Your task to perform on an android device: What is the recent news? Image 0: 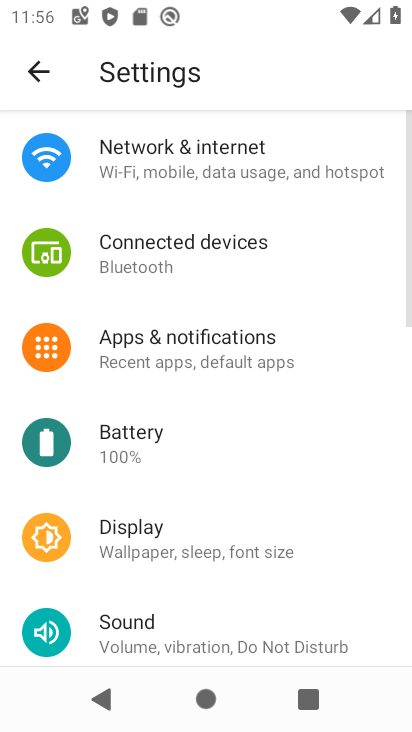
Step 0: press home button
Your task to perform on an android device: What is the recent news? Image 1: 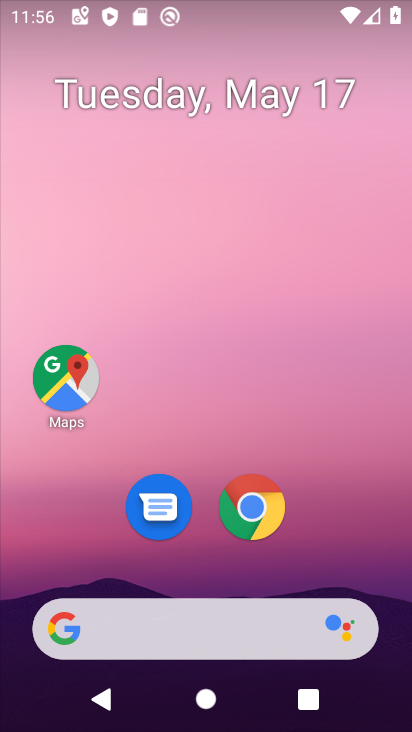
Step 1: drag from (301, 545) to (321, 227)
Your task to perform on an android device: What is the recent news? Image 2: 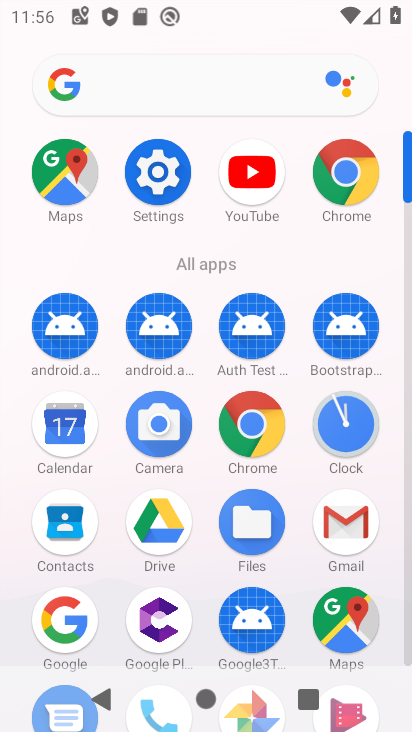
Step 2: click (246, 424)
Your task to perform on an android device: What is the recent news? Image 3: 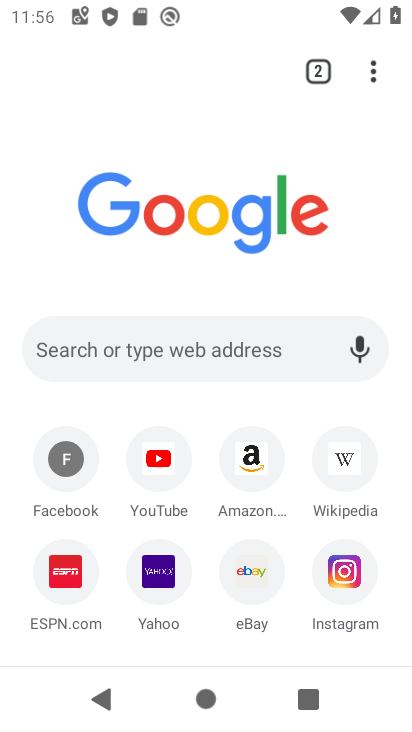
Step 3: click (204, 343)
Your task to perform on an android device: What is the recent news? Image 4: 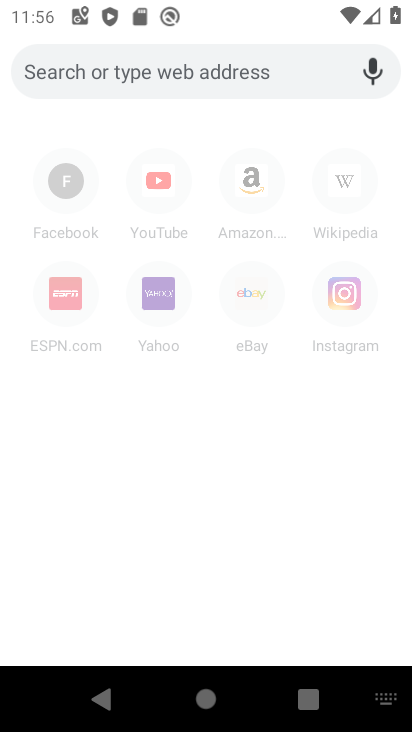
Step 4: type "What is the recent news?"
Your task to perform on an android device: What is the recent news? Image 5: 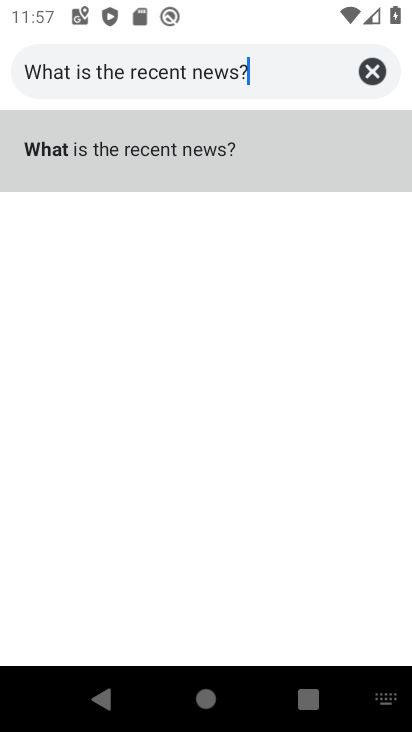
Step 5: click (82, 140)
Your task to perform on an android device: What is the recent news? Image 6: 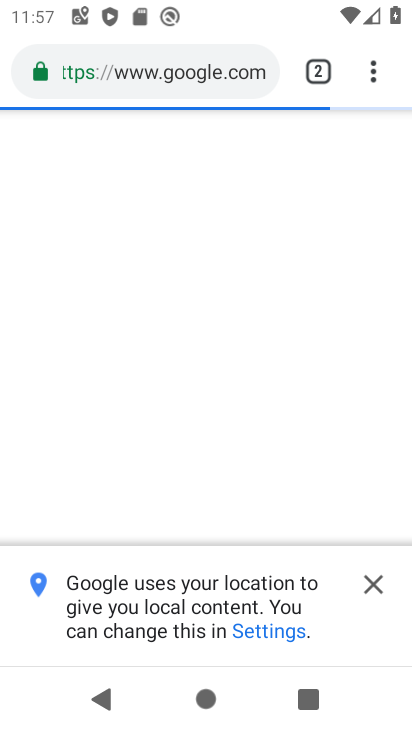
Step 6: task complete